Your task to perform on an android device: Search for Italian restaurants on Maps Image 0: 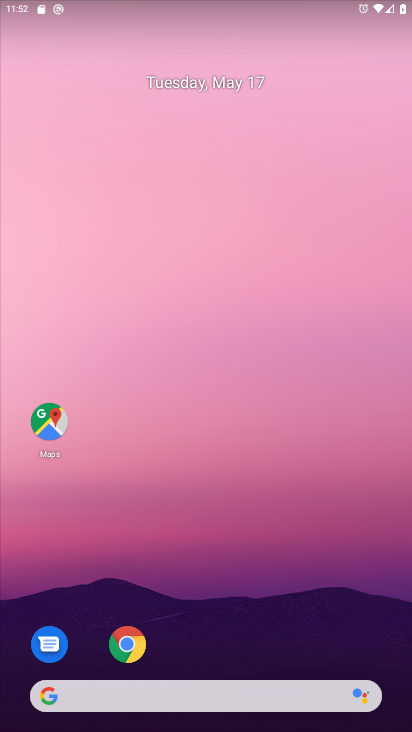
Step 0: drag from (214, 657) to (262, 18)
Your task to perform on an android device: Search for Italian restaurants on Maps Image 1: 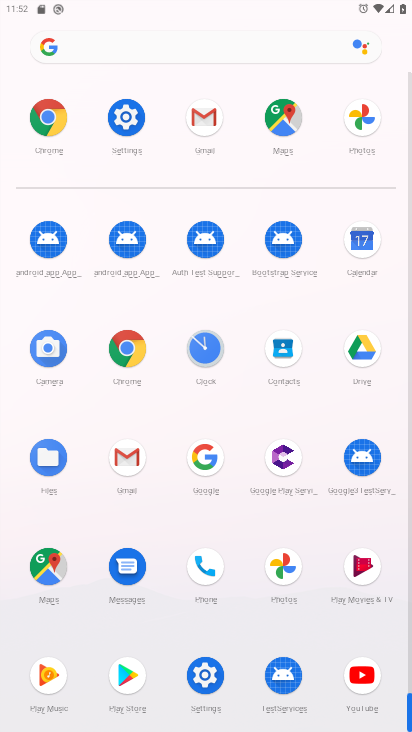
Step 1: click (281, 111)
Your task to perform on an android device: Search for Italian restaurants on Maps Image 2: 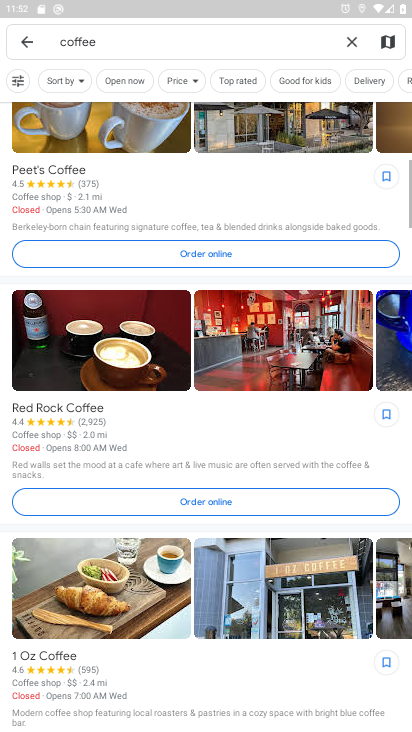
Step 2: click (349, 44)
Your task to perform on an android device: Search for Italian restaurants on Maps Image 3: 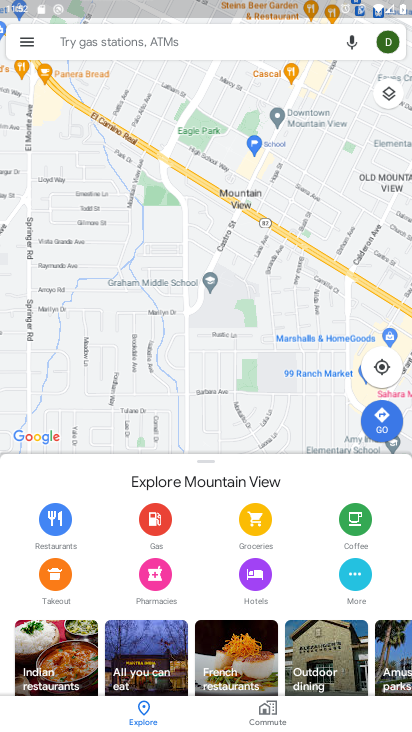
Step 3: type "italian"
Your task to perform on an android device: Search for Italian restaurants on Maps Image 4: 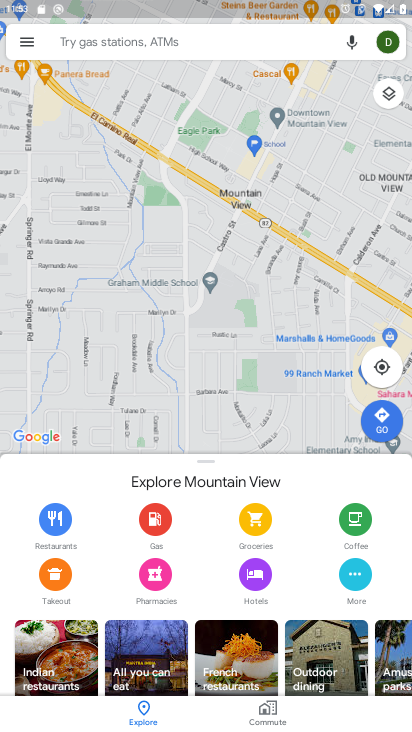
Step 4: click (112, 38)
Your task to perform on an android device: Search for Italian restaurants on Maps Image 5: 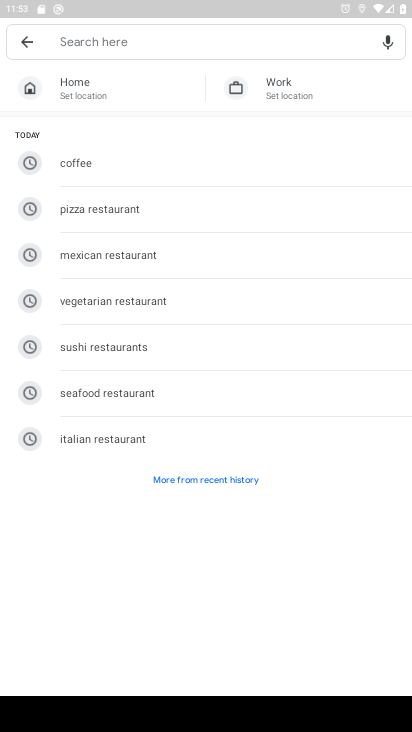
Step 5: click (109, 434)
Your task to perform on an android device: Search for Italian restaurants on Maps Image 6: 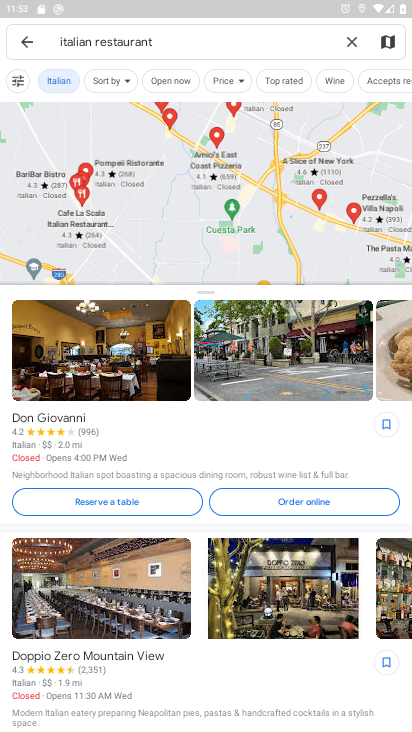
Step 6: task complete